Your task to perform on an android device: View the shopping cart on ebay. Image 0: 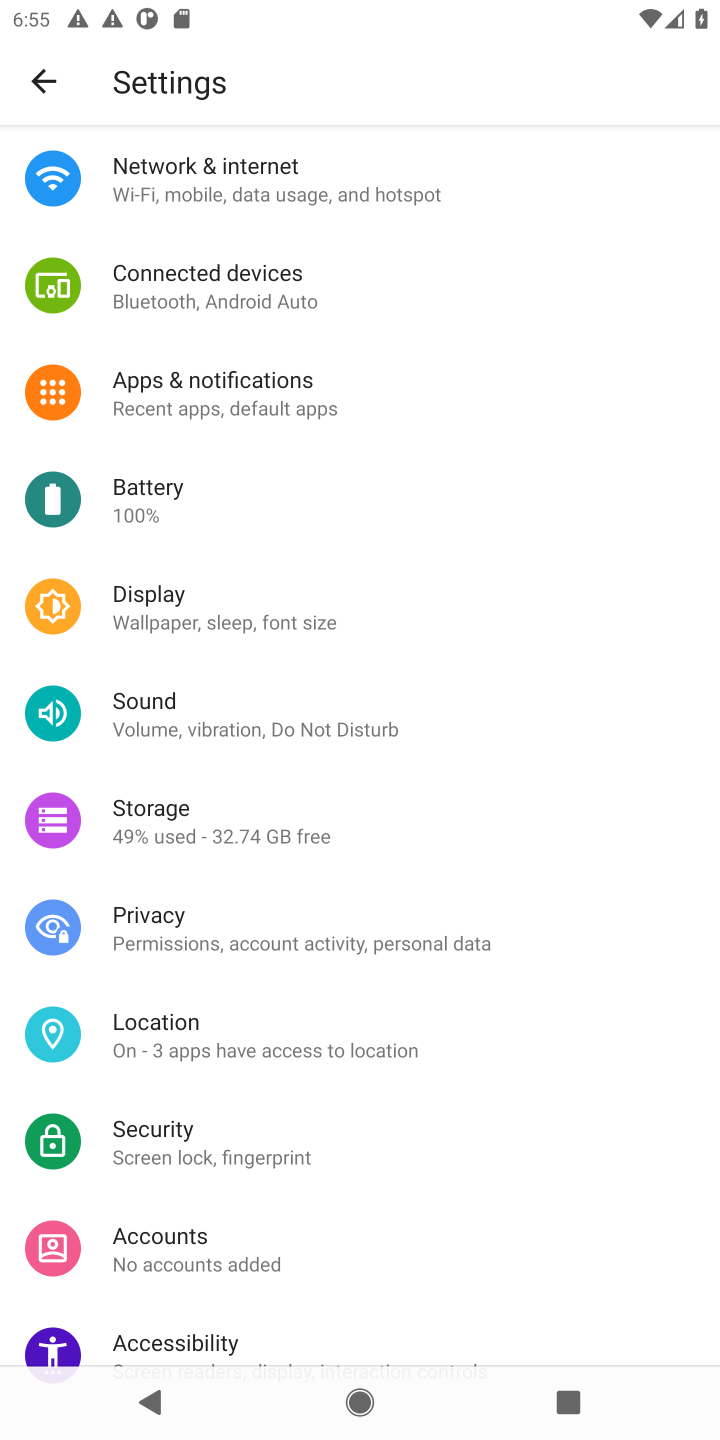
Step 0: press home button
Your task to perform on an android device: View the shopping cart on ebay. Image 1: 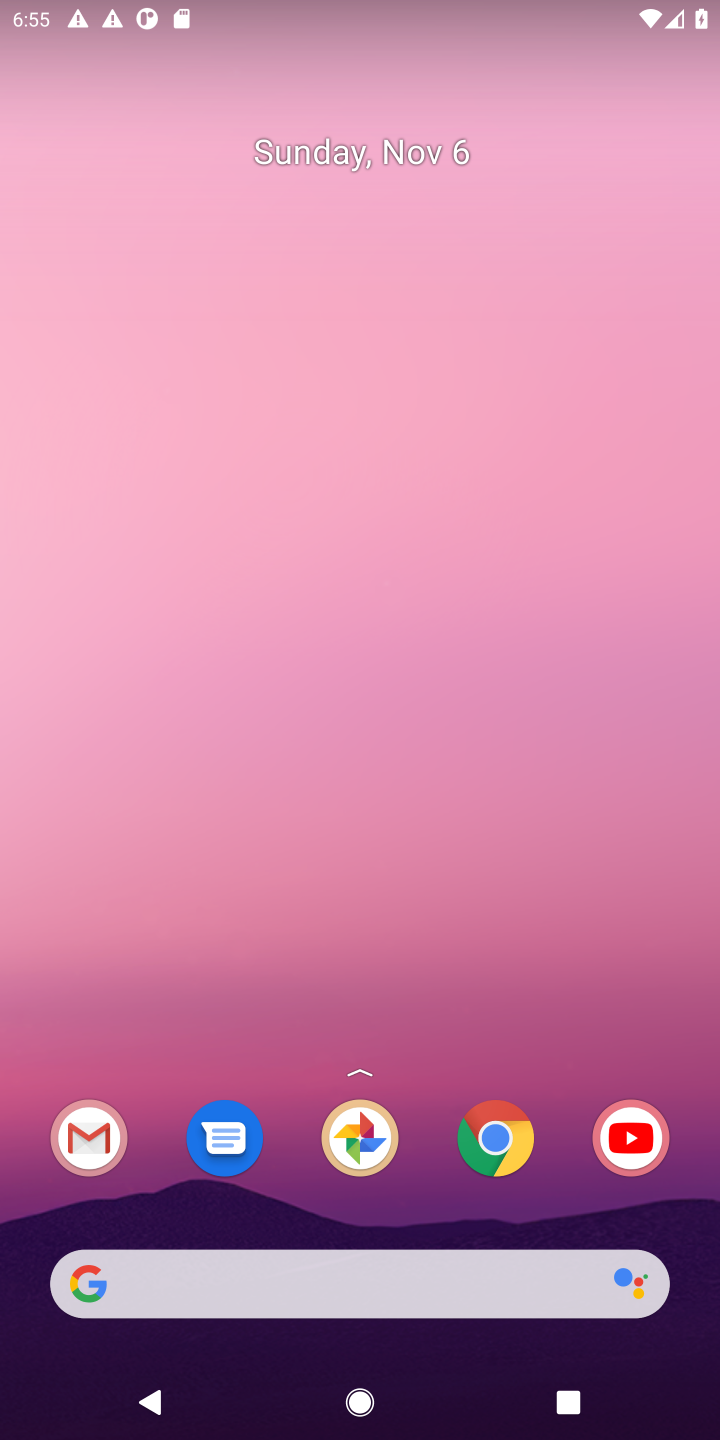
Step 1: drag from (260, 1298) to (272, 468)
Your task to perform on an android device: View the shopping cart on ebay. Image 2: 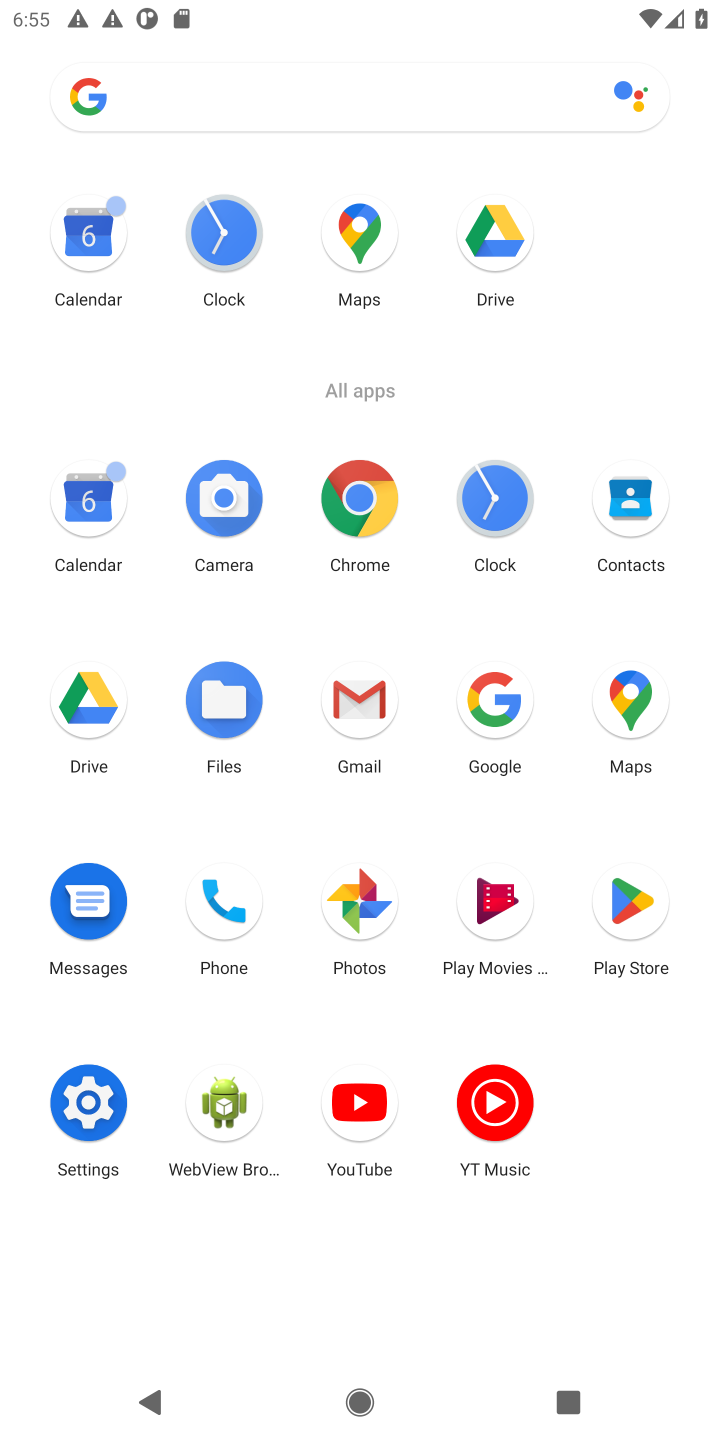
Step 2: click (486, 708)
Your task to perform on an android device: View the shopping cart on ebay. Image 3: 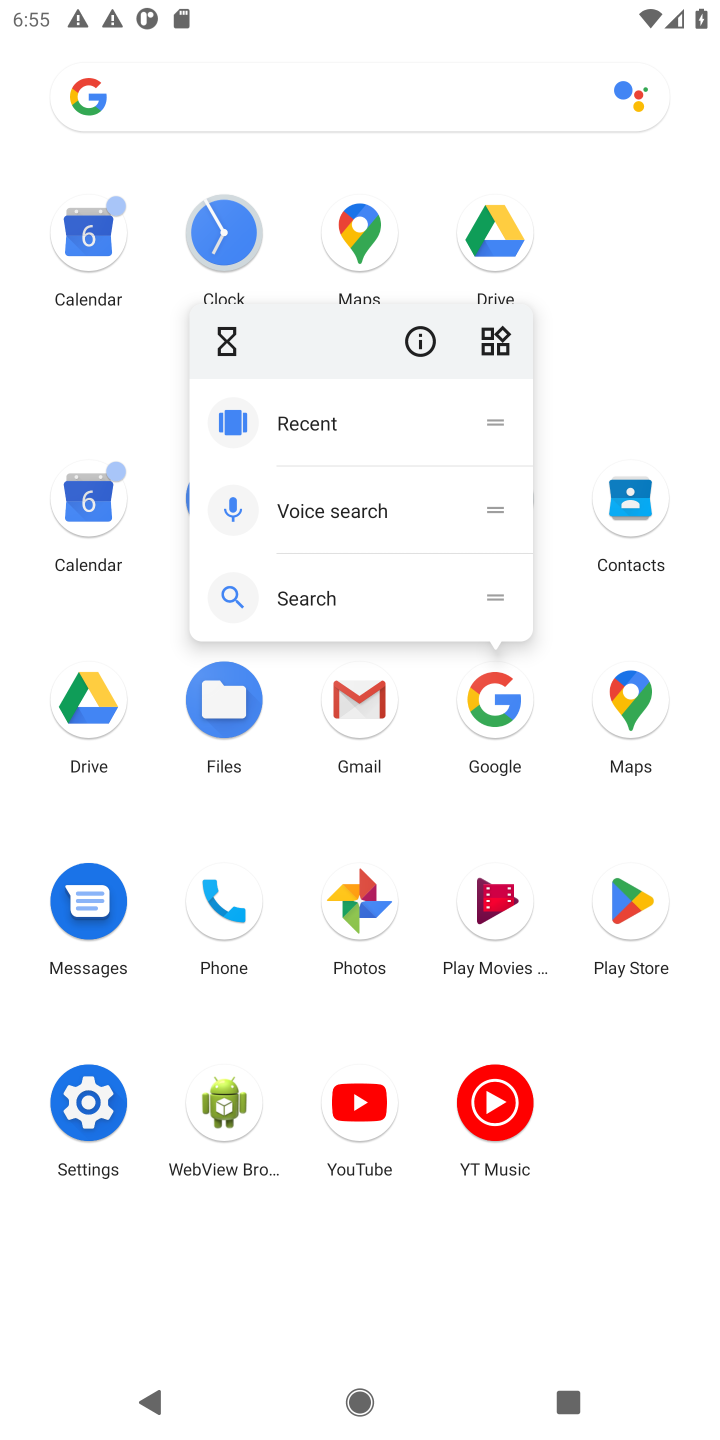
Step 3: click (486, 708)
Your task to perform on an android device: View the shopping cart on ebay. Image 4: 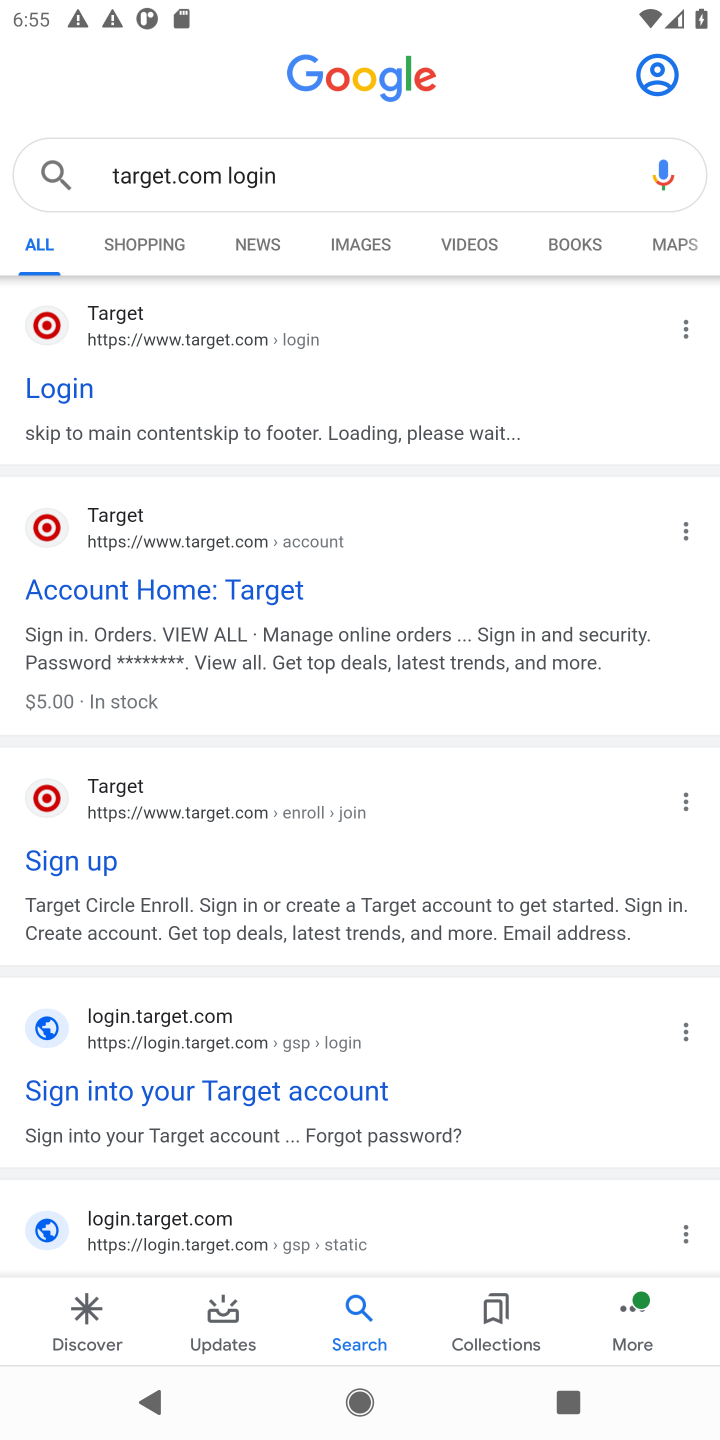
Step 4: click (327, 170)
Your task to perform on an android device: View the shopping cart on ebay. Image 5: 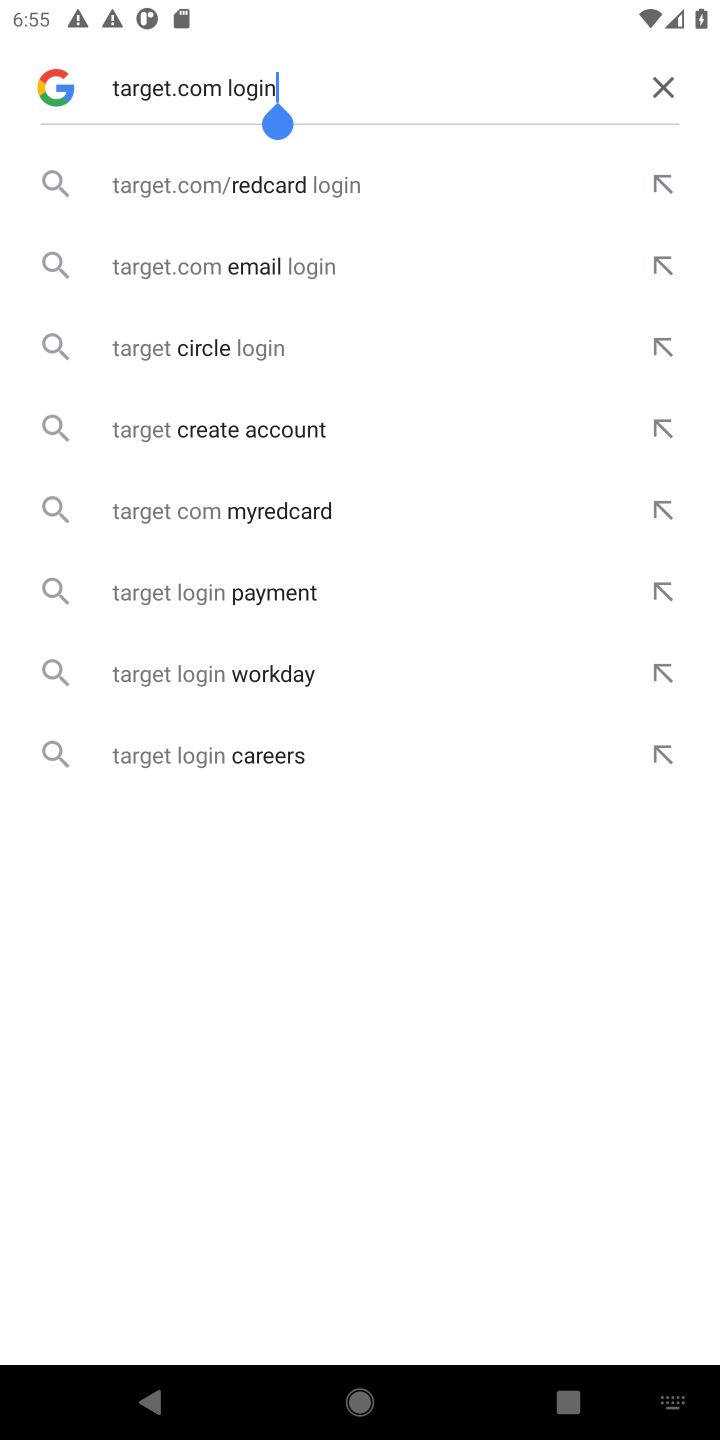
Step 5: click (649, 101)
Your task to perform on an android device: View the shopping cart on ebay. Image 6: 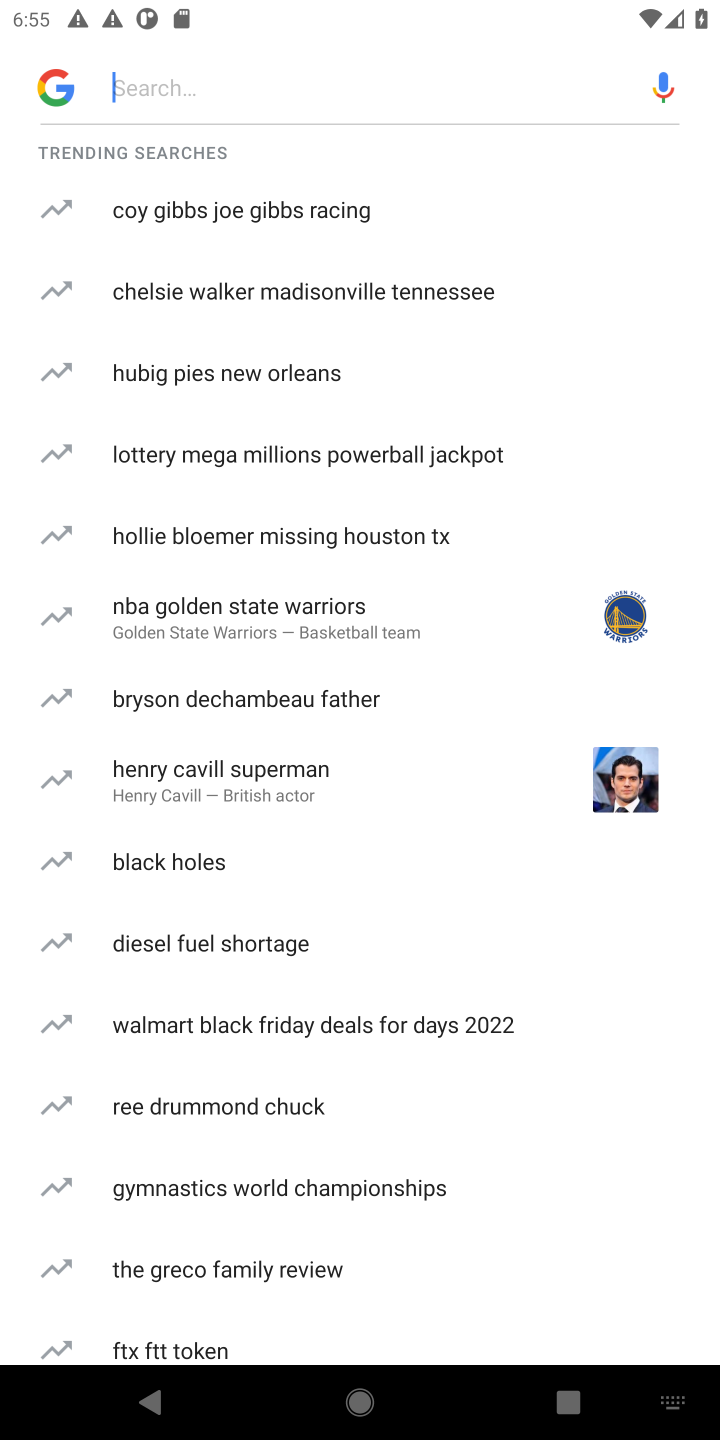
Step 6: click (253, 65)
Your task to perform on an android device: View the shopping cart on ebay. Image 7: 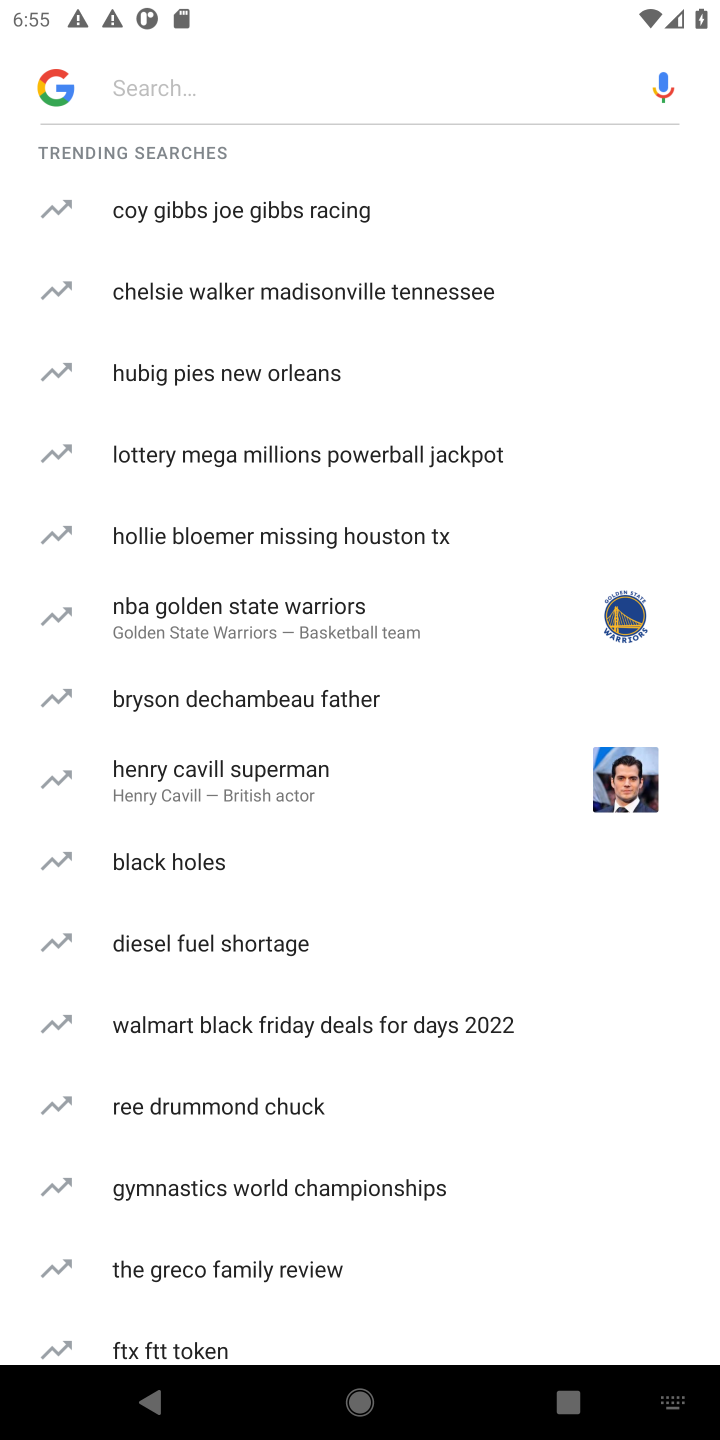
Step 7: type "ebay "
Your task to perform on an android device: View the shopping cart on ebay. Image 8: 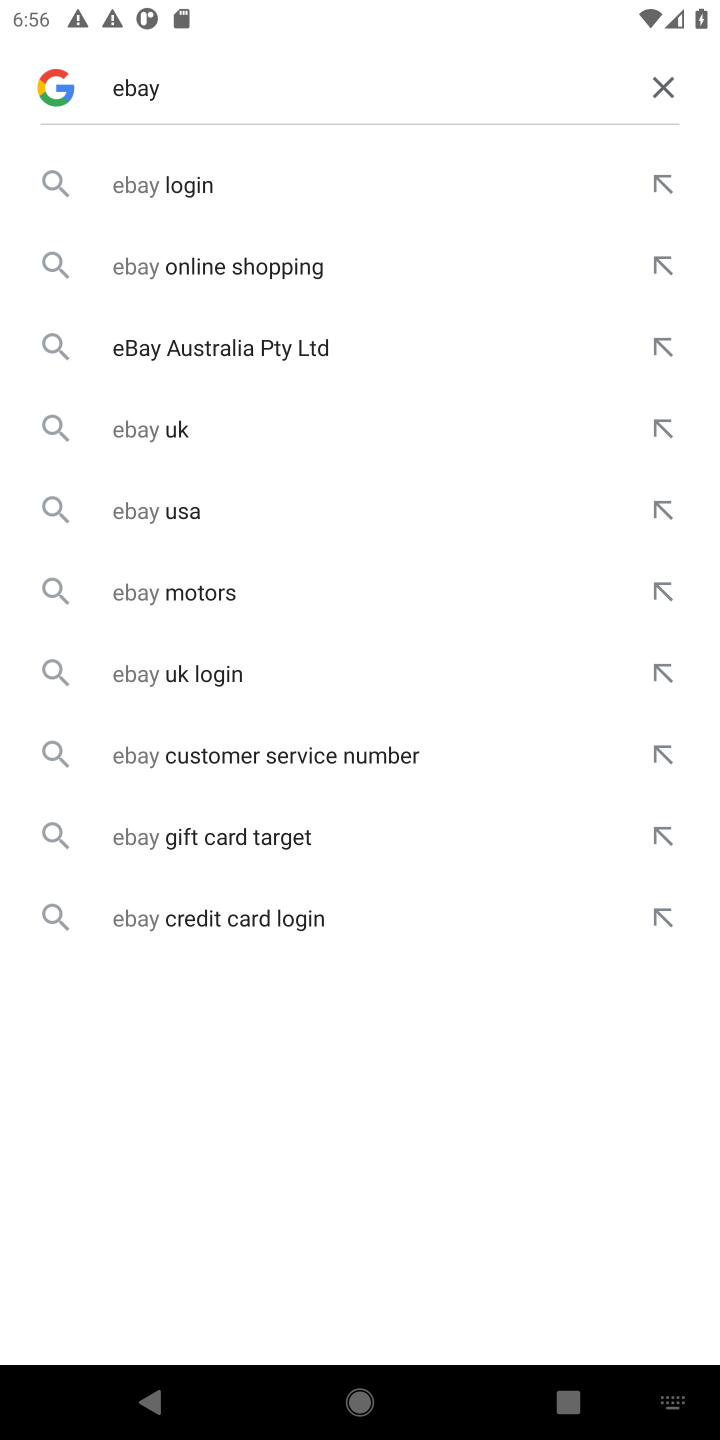
Step 8: click (178, 194)
Your task to perform on an android device: View the shopping cart on ebay. Image 9: 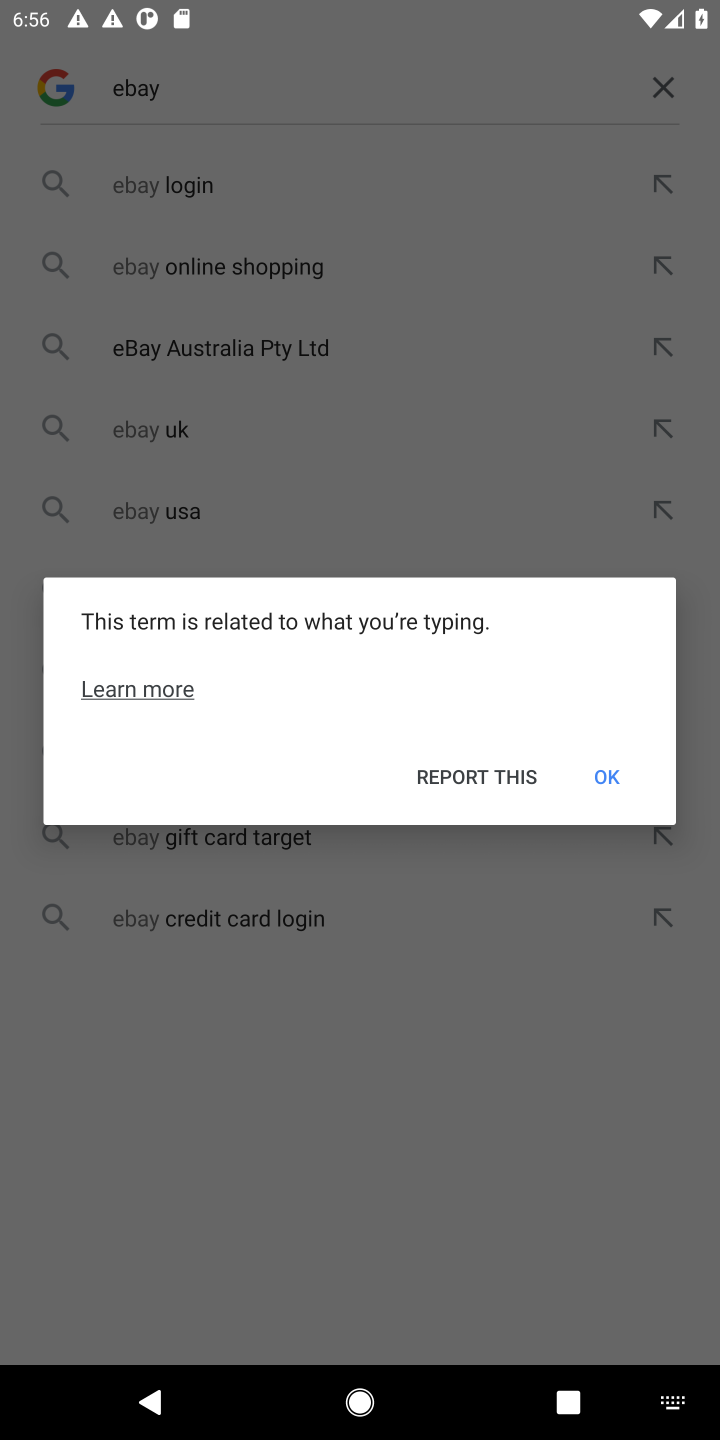
Step 9: click (601, 783)
Your task to perform on an android device: View the shopping cart on ebay. Image 10: 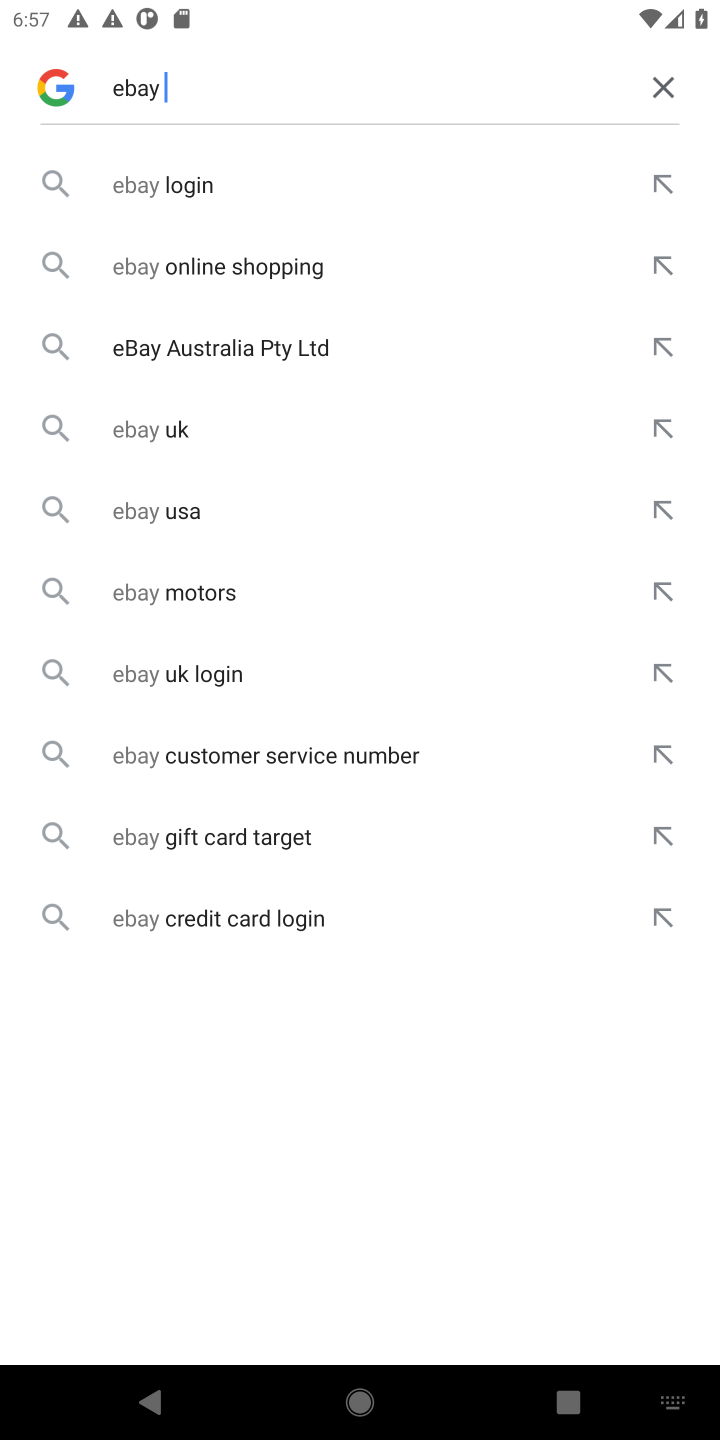
Step 10: click (186, 189)
Your task to perform on an android device: View the shopping cart on ebay. Image 11: 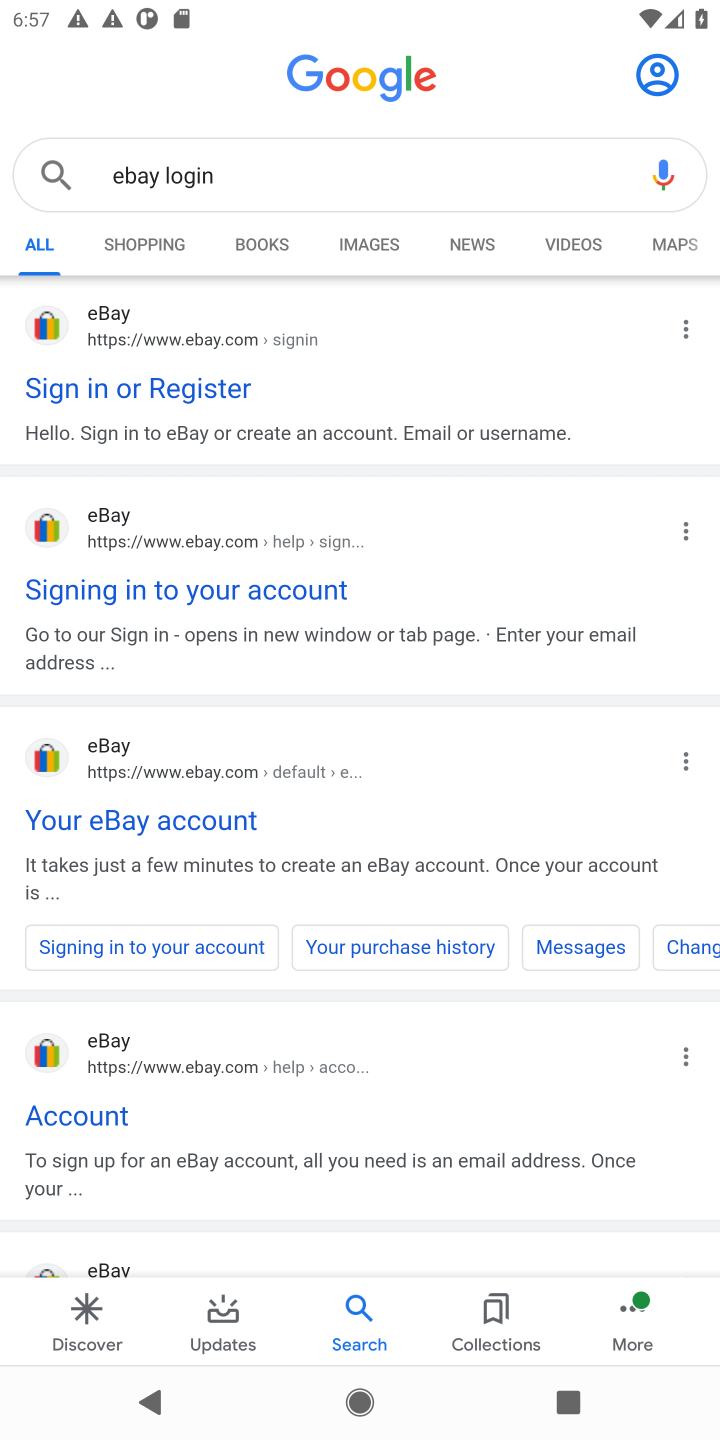
Step 11: click (46, 324)
Your task to perform on an android device: View the shopping cart on ebay. Image 12: 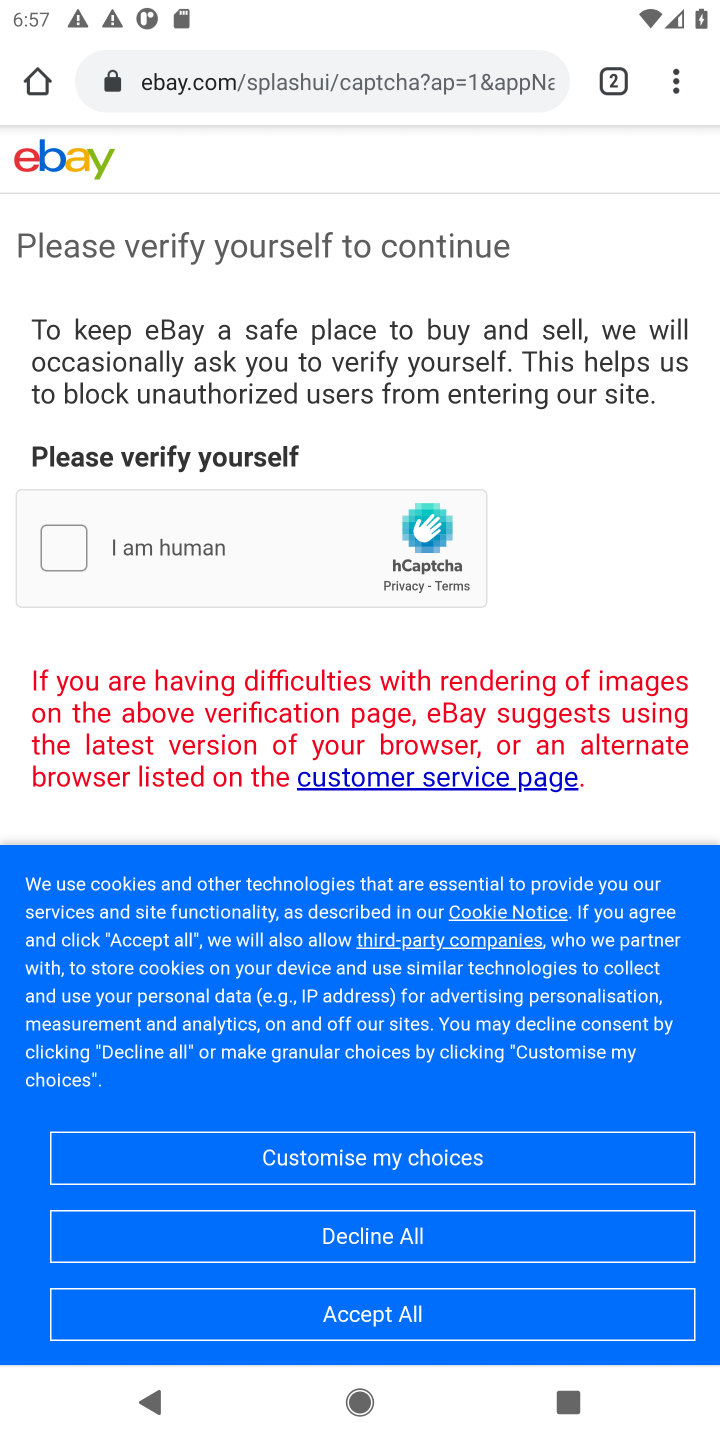
Step 12: click (485, 1319)
Your task to perform on an android device: View the shopping cart on ebay. Image 13: 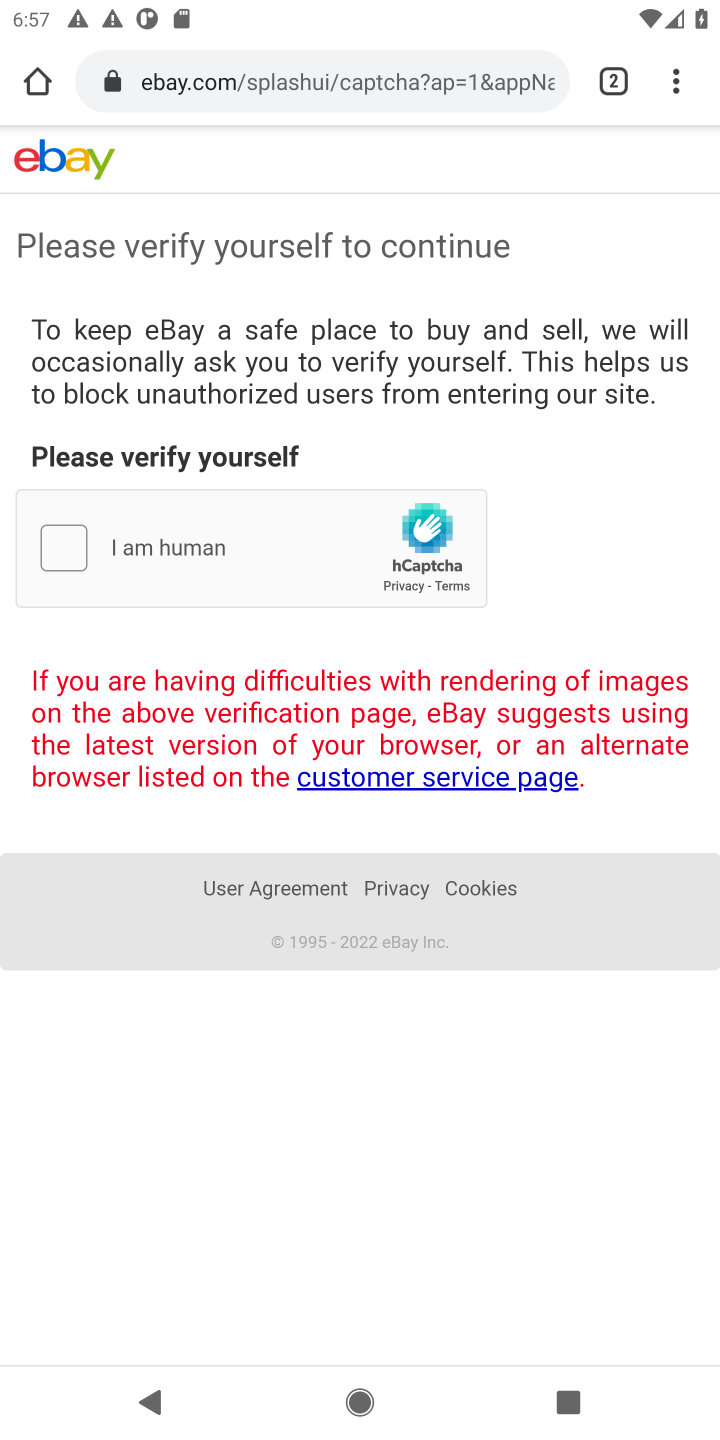
Step 13: drag from (449, 420) to (446, 1069)
Your task to perform on an android device: View the shopping cart on ebay. Image 14: 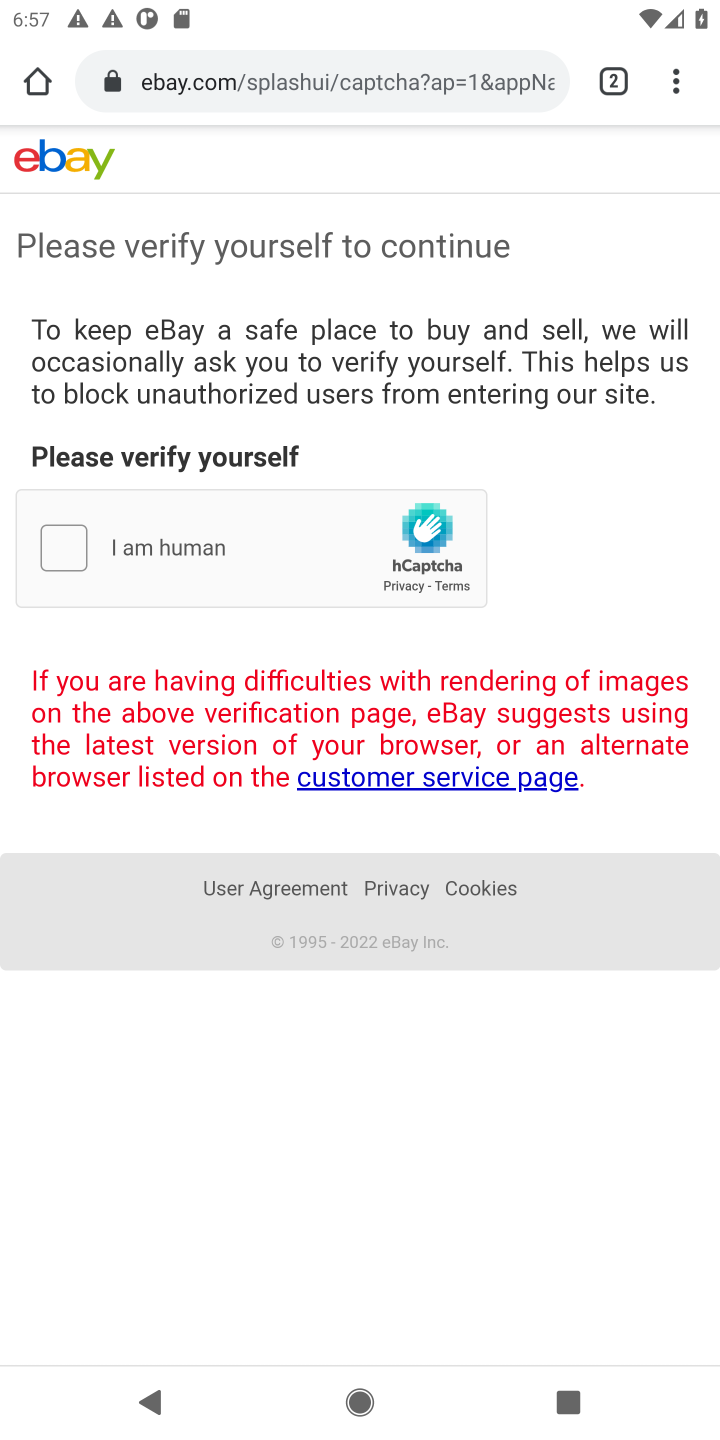
Step 14: press back button
Your task to perform on an android device: View the shopping cart on ebay. Image 15: 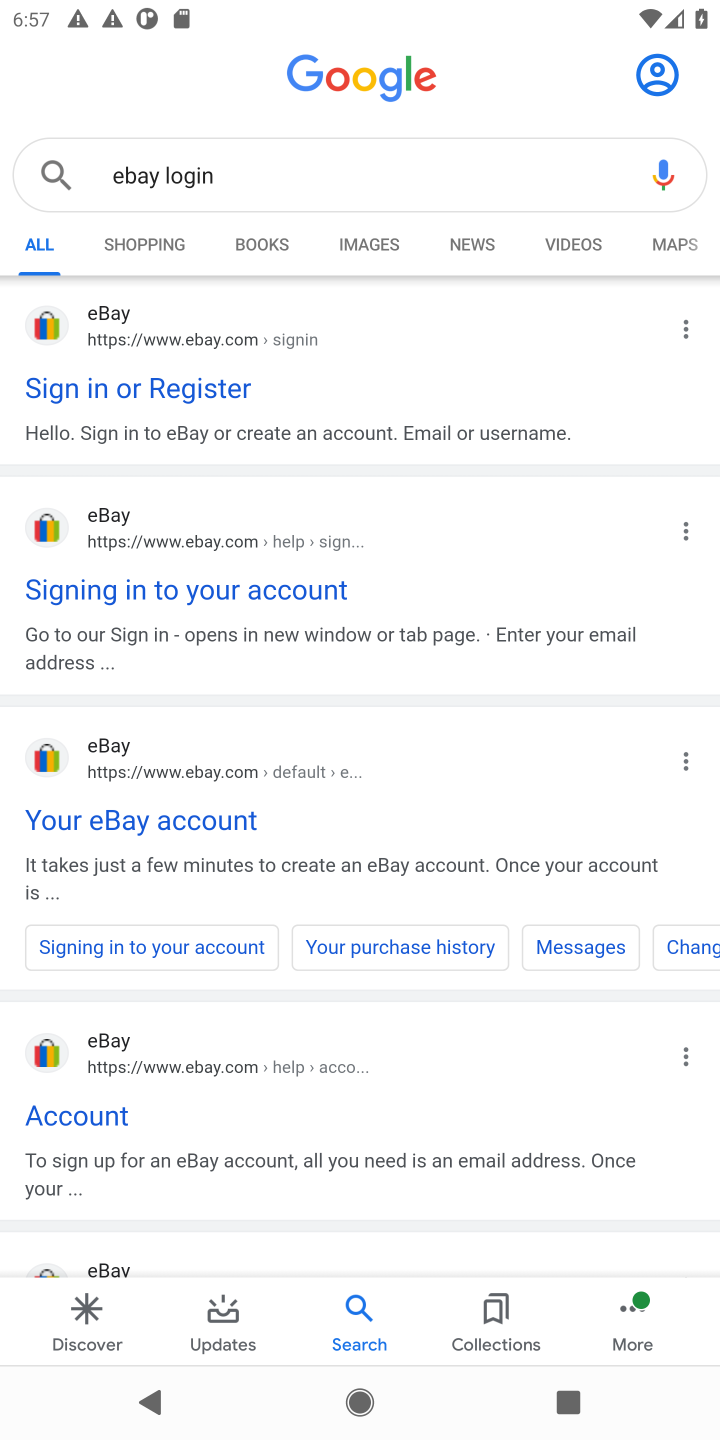
Step 15: click (53, 530)
Your task to perform on an android device: View the shopping cart on ebay. Image 16: 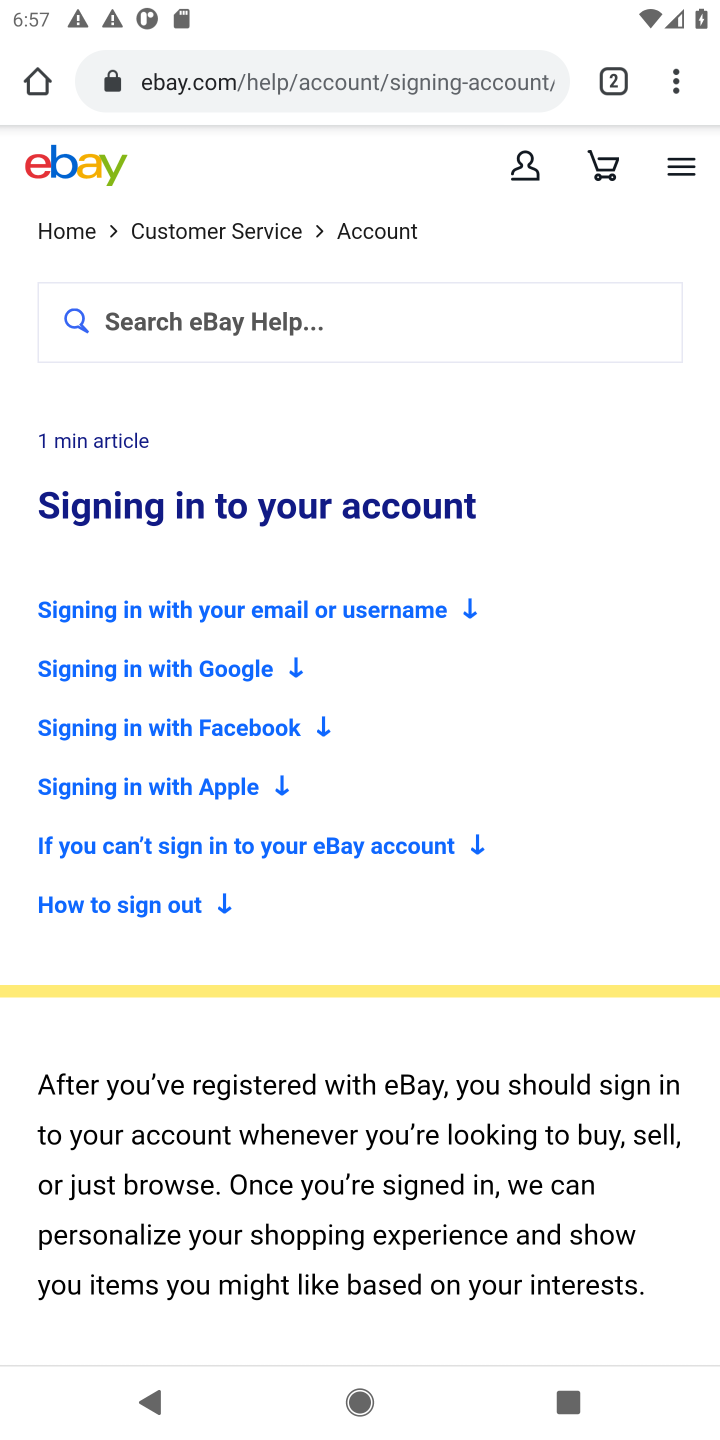
Step 16: drag from (264, 937) to (348, 213)
Your task to perform on an android device: View the shopping cart on ebay. Image 17: 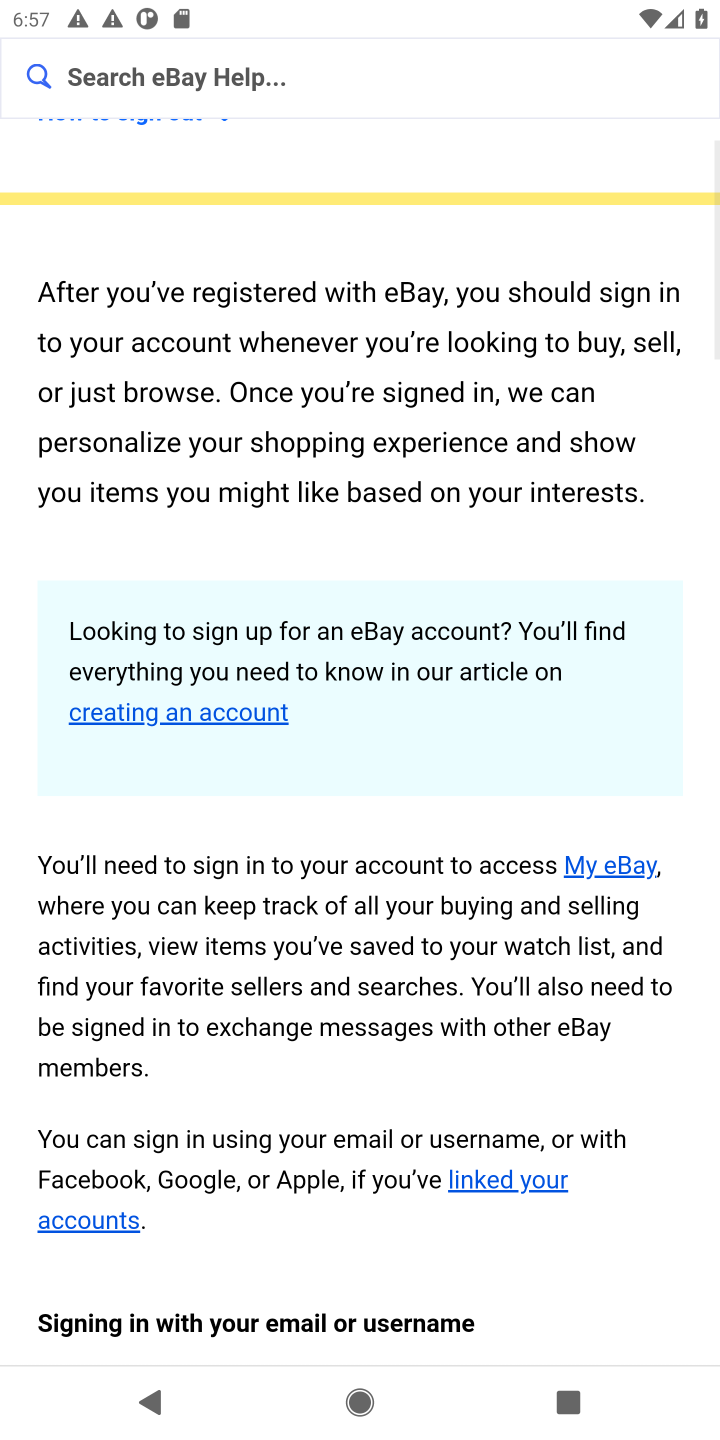
Step 17: drag from (382, 293) to (302, 955)
Your task to perform on an android device: View the shopping cart on ebay. Image 18: 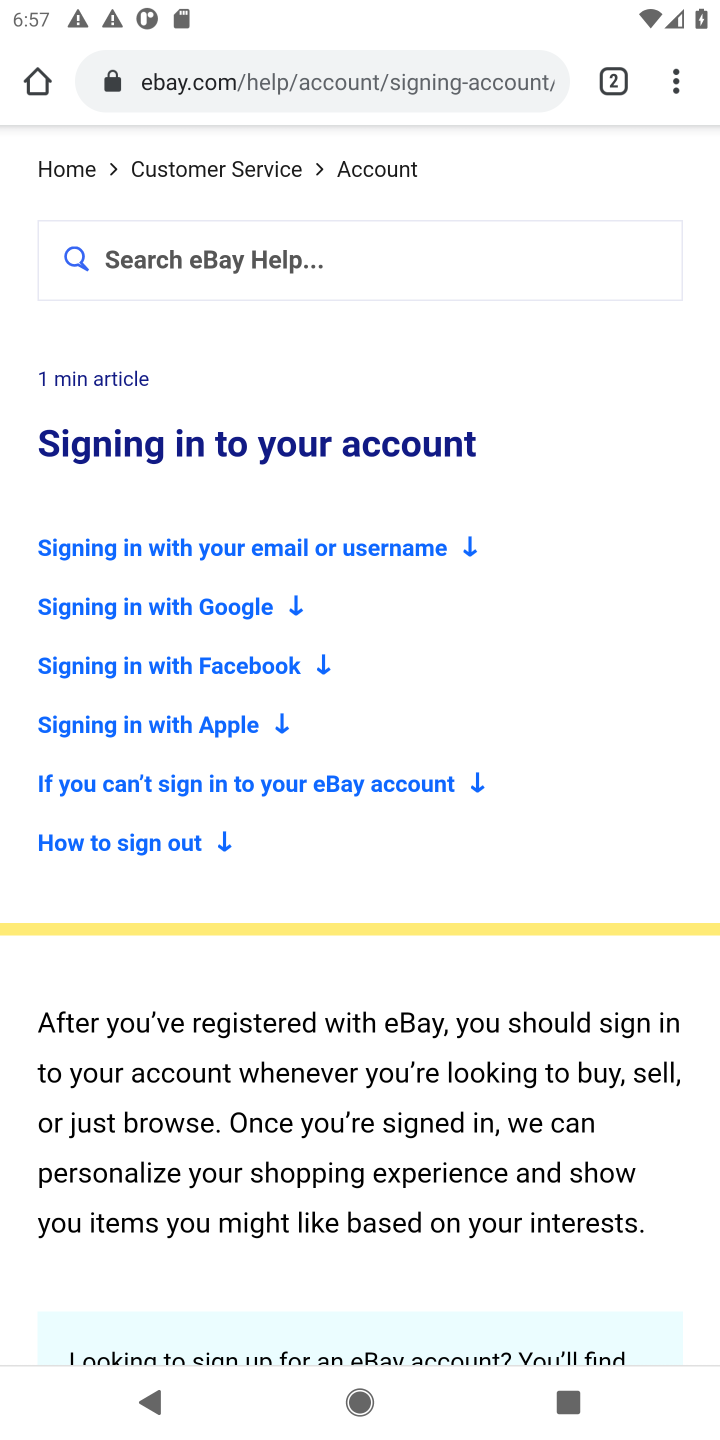
Step 18: drag from (483, 431) to (466, 1015)
Your task to perform on an android device: View the shopping cart on ebay. Image 19: 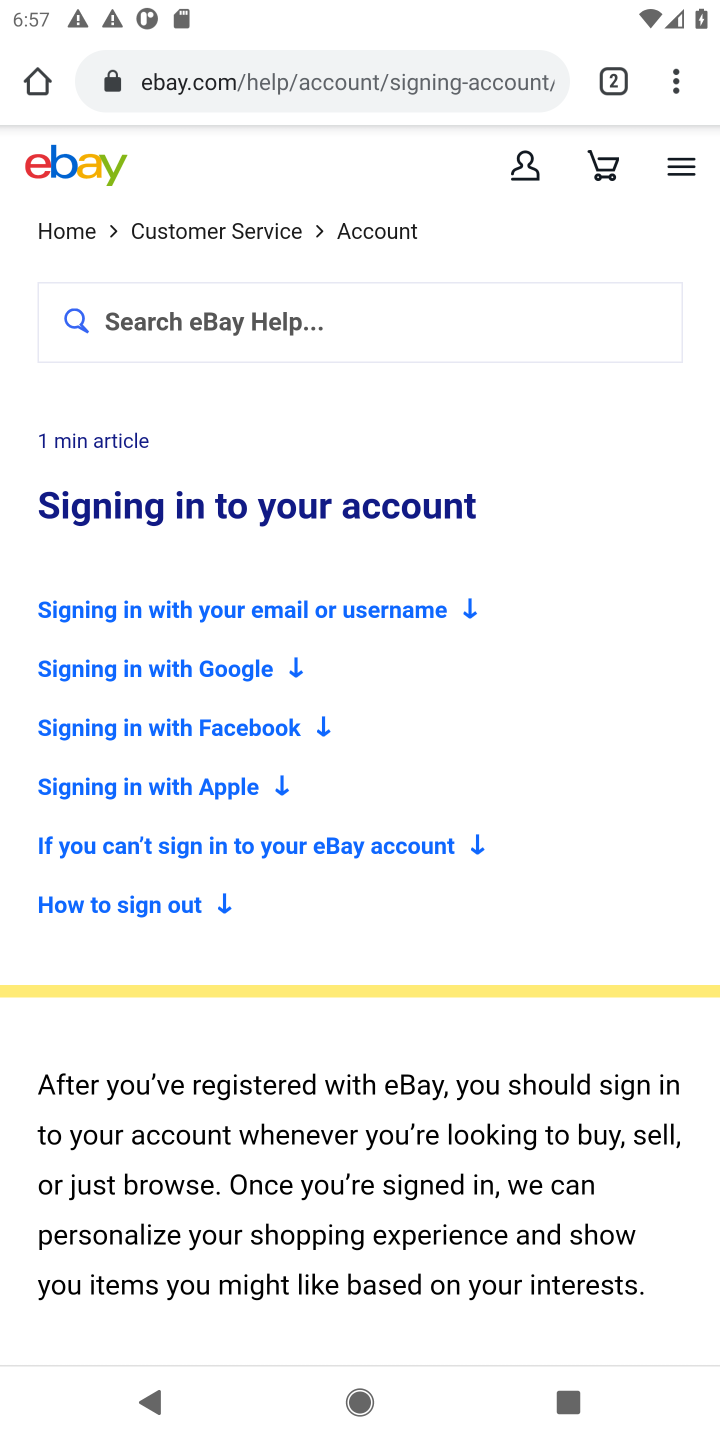
Step 19: click (608, 157)
Your task to perform on an android device: View the shopping cart on ebay. Image 20: 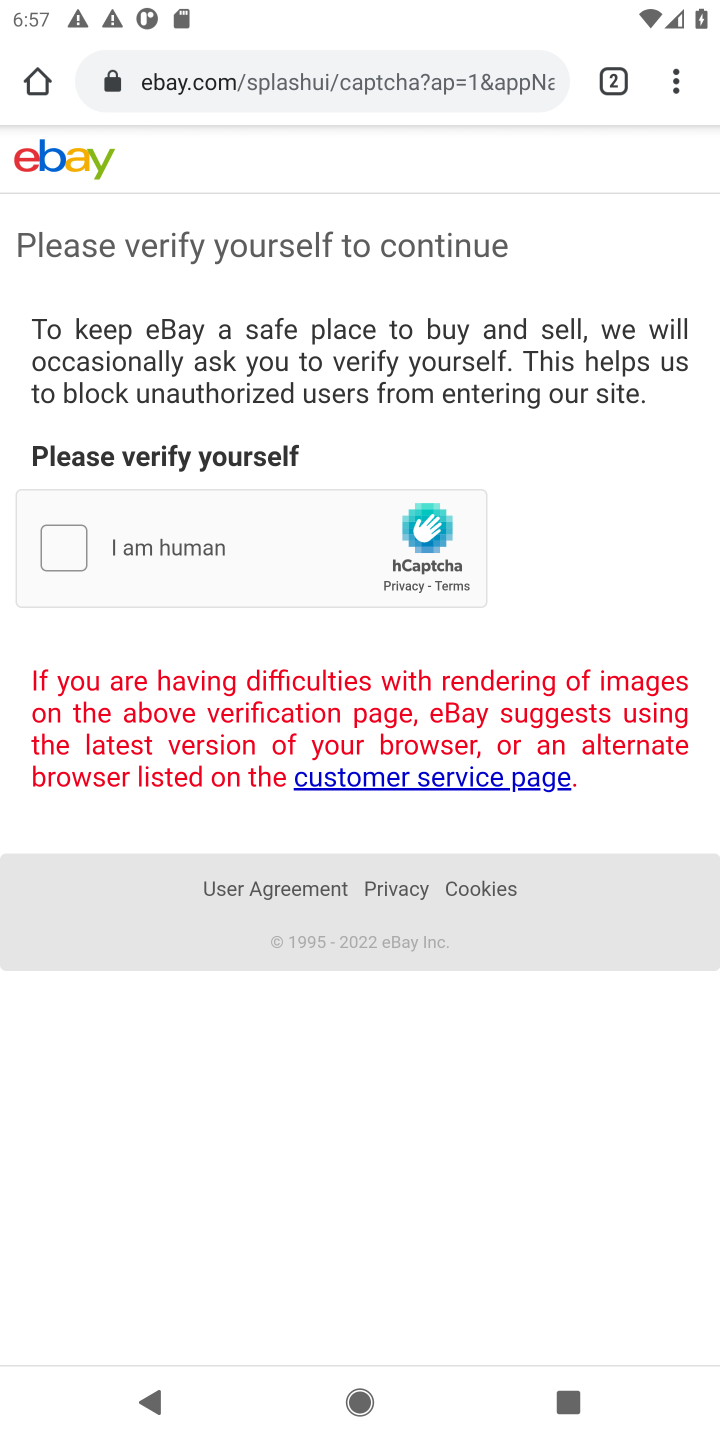
Step 20: task complete